Your task to perform on an android device: Open calendar and show me the fourth week of next month Image 0: 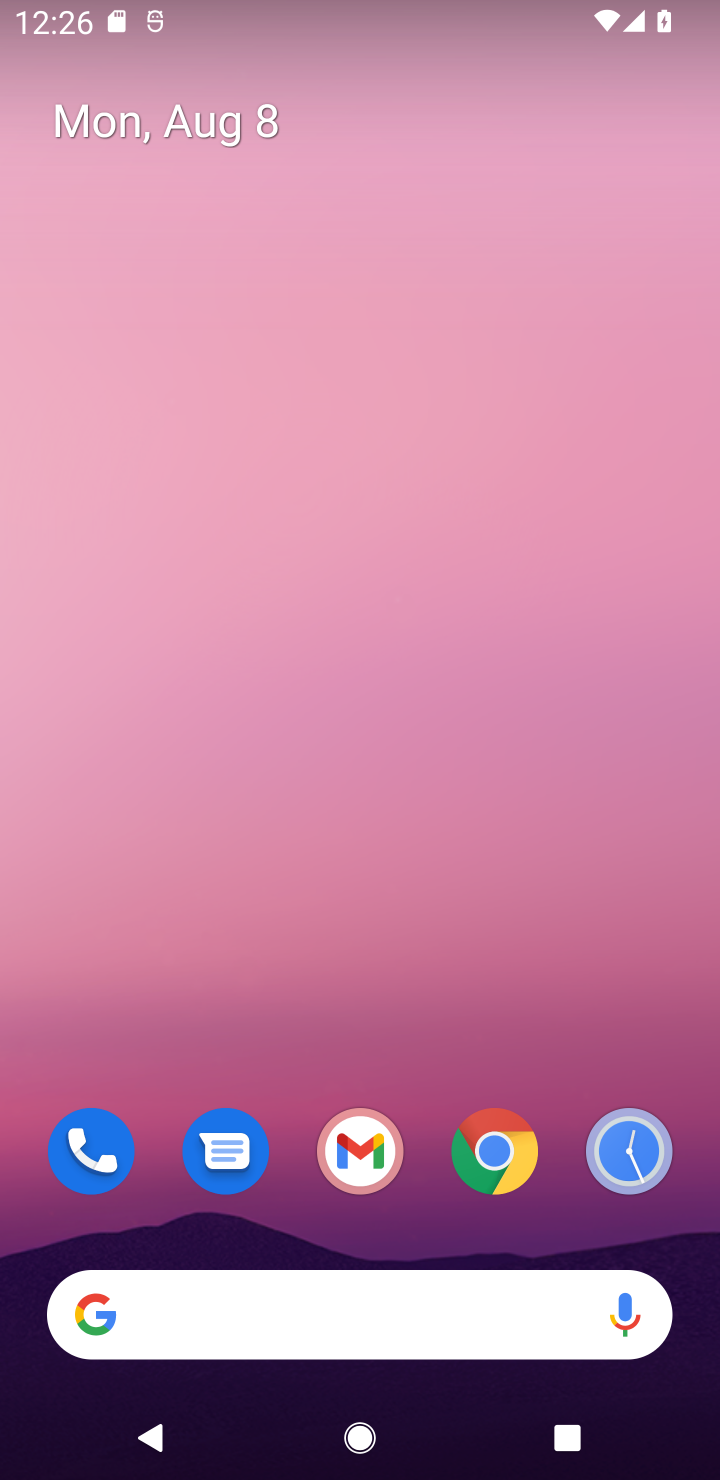
Step 0: drag from (213, 1150) to (311, 316)
Your task to perform on an android device: Open calendar and show me the fourth week of next month Image 1: 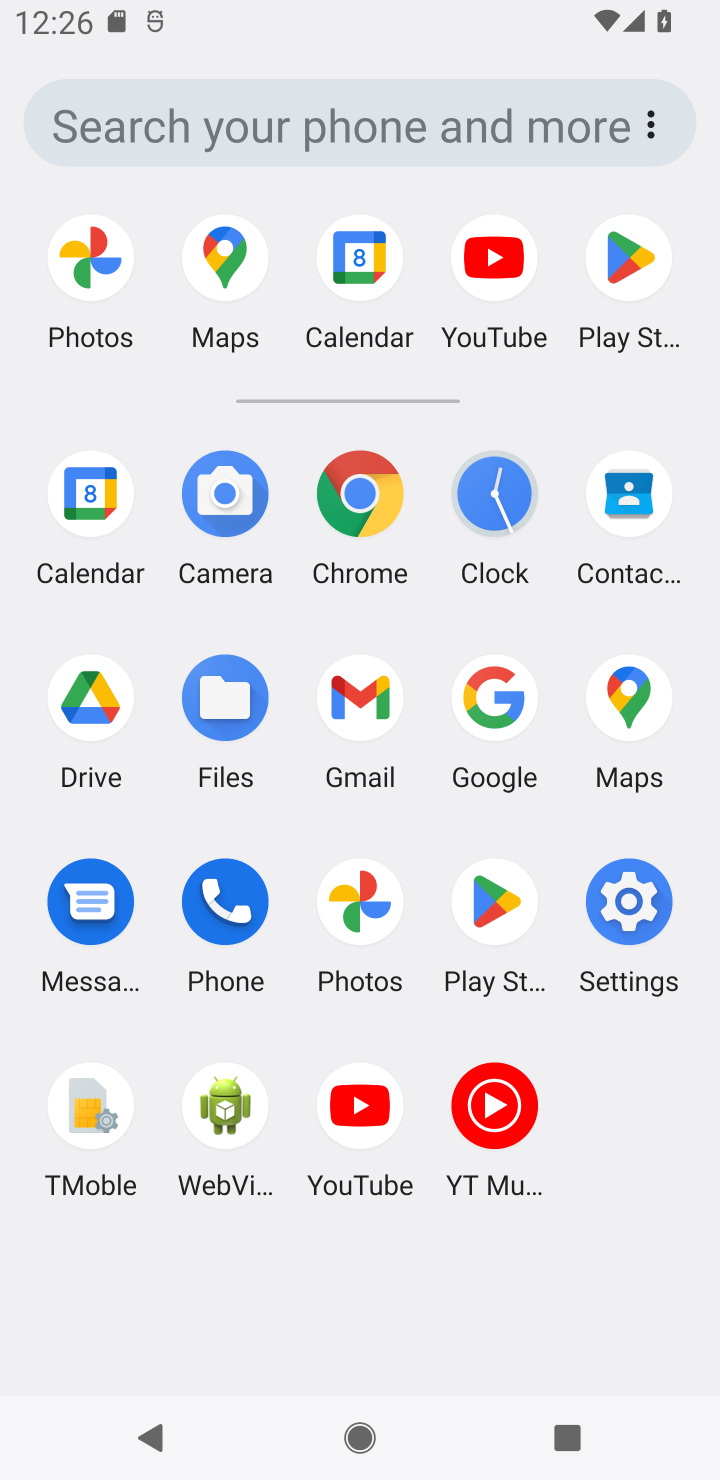
Step 1: click (93, 500)
Your task to perform on an android device: Open calendar and show me the fourth week of next month Image 2: 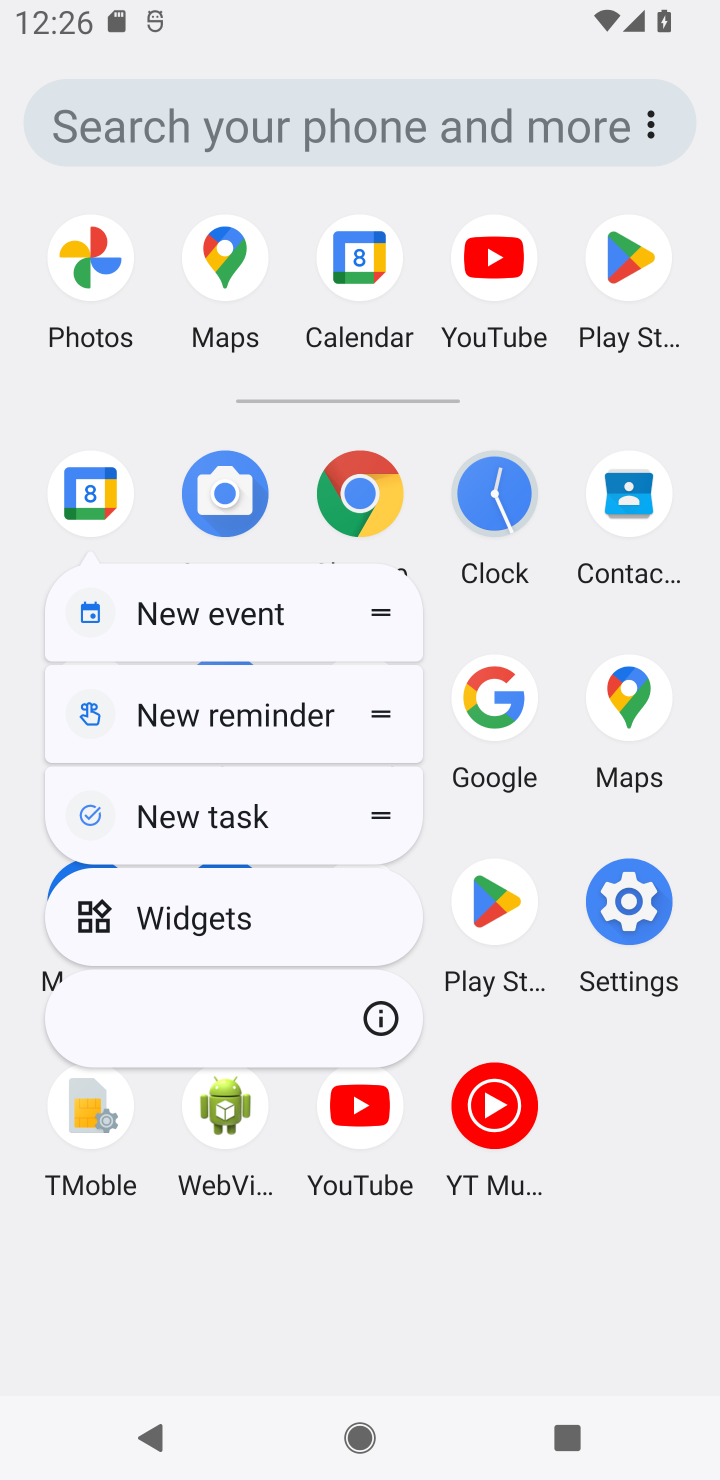
Step 2: click (101, 487)
Your task to perform on an android device: Open calendar and show me the fourth week of next month Image 3: 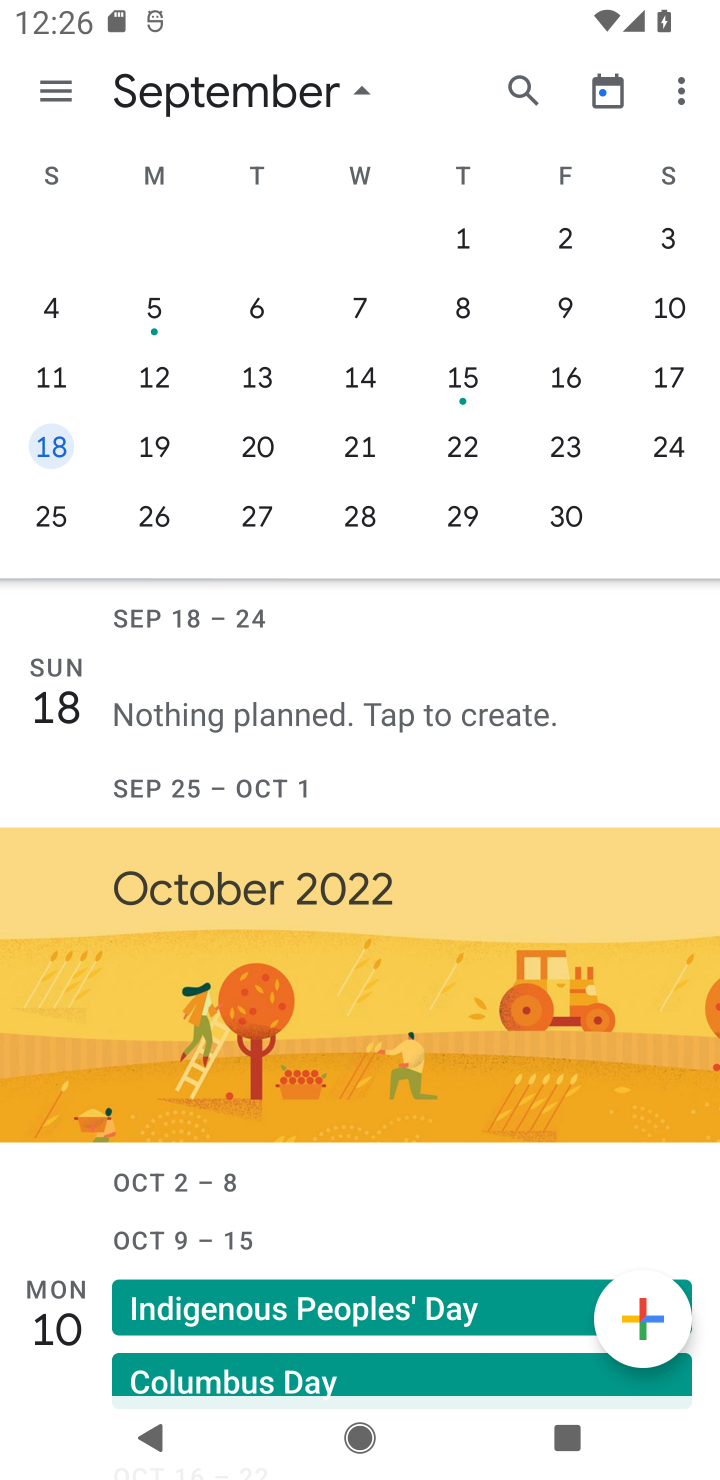
Step 3: click (101, 487)
Your task to perform on an android device: Open calendar and show me the fourth week of next month Image 4: 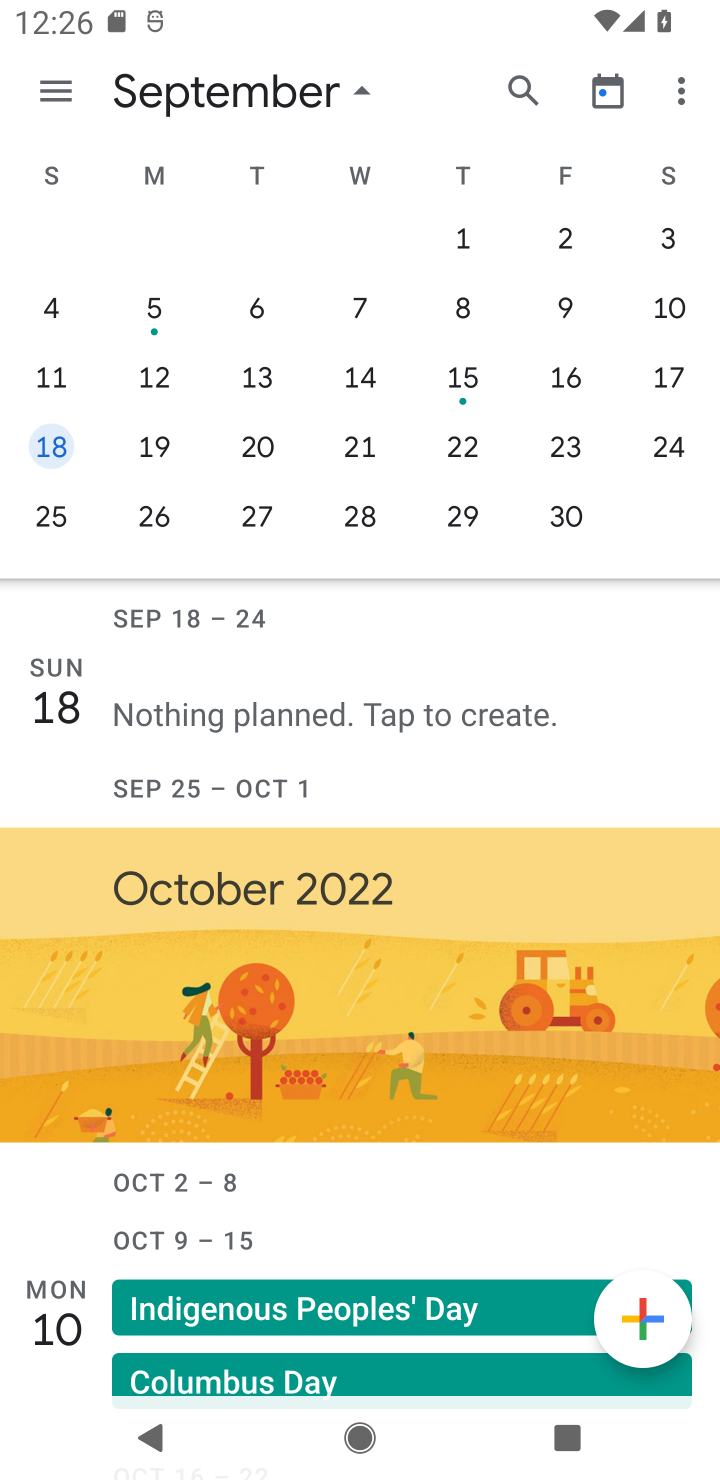
Step 4: click (70, 420)
Your task to perform on an android device: Open calendar and show me the fourth week of next month Image 5: 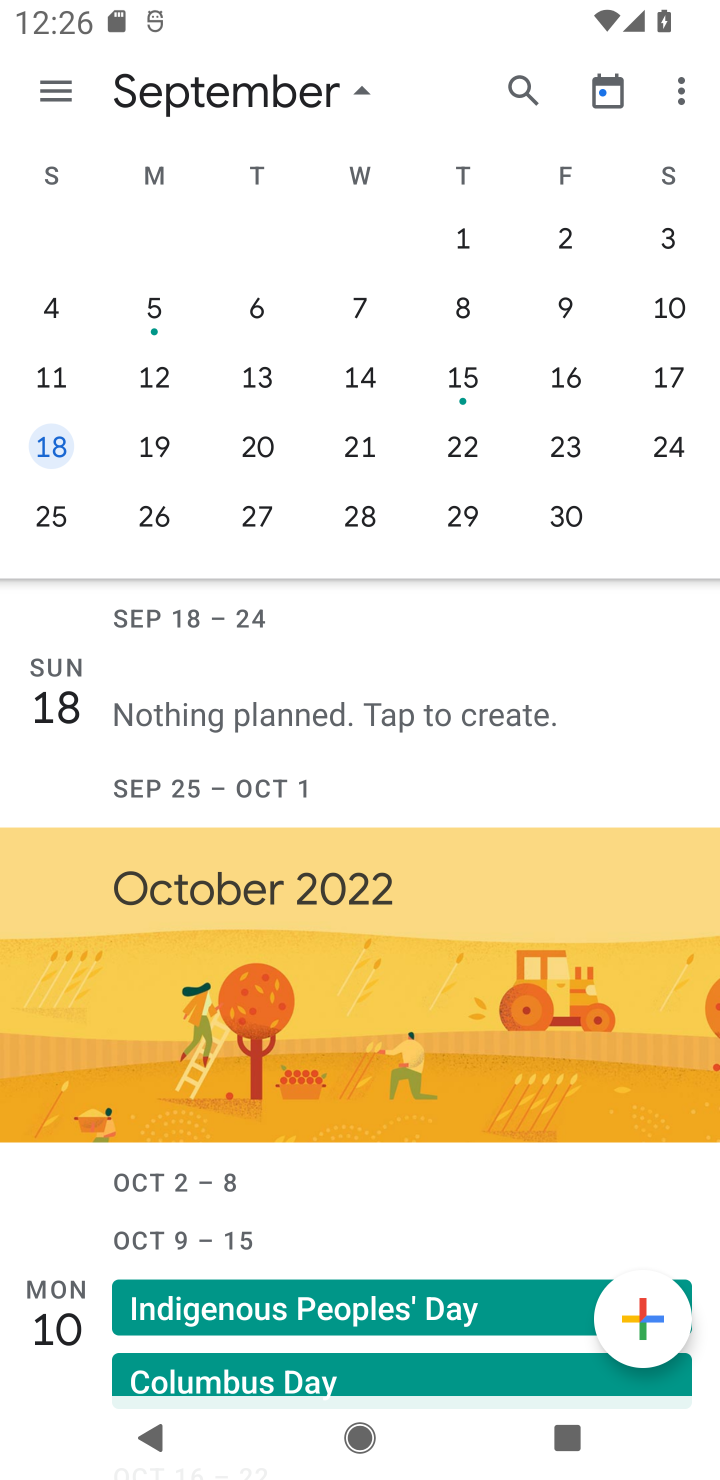
Step 5: click (72, 445)
Your task to perform on an android device: Open calendar and show me the fourth week of next month Image 6: 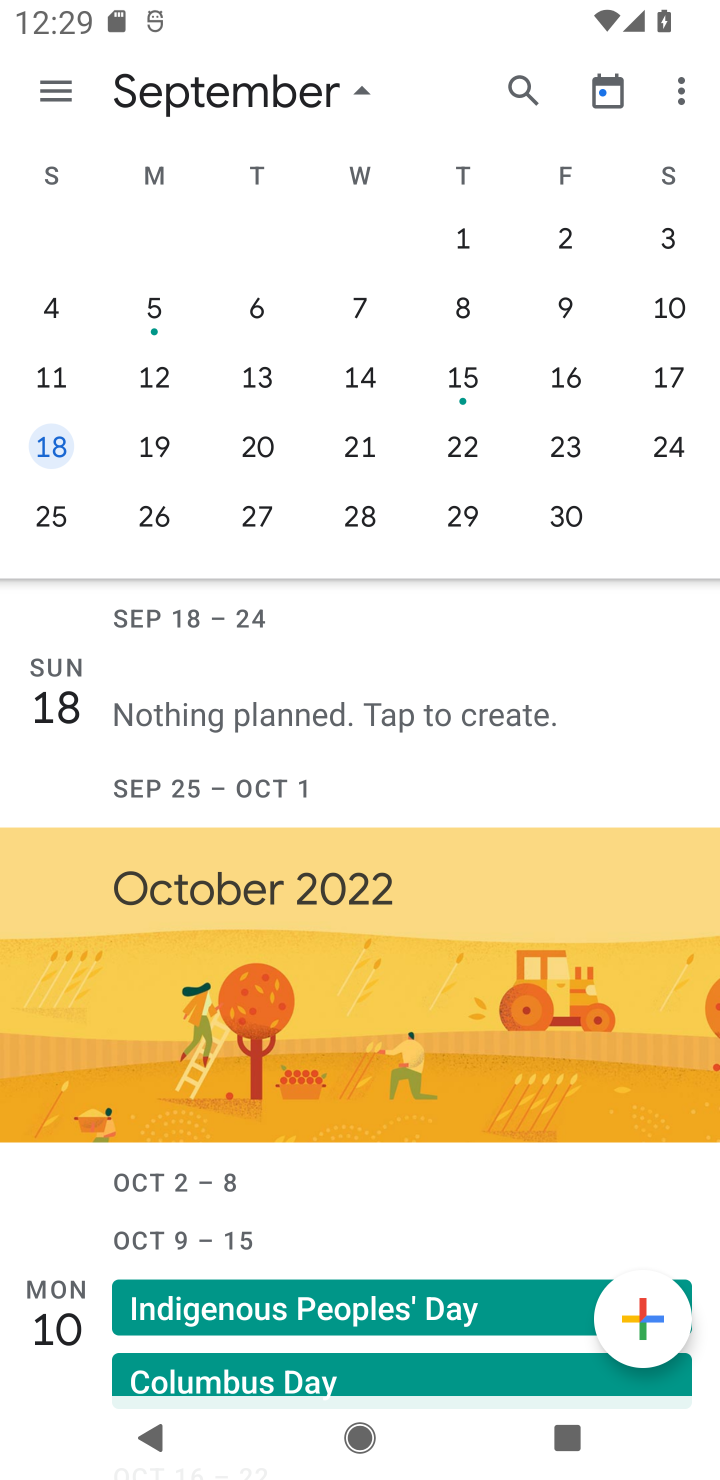
Step 6: click (56, 433)
Your task to perform on an android device: Open calendar and show me the fourth week of next month Image 7: 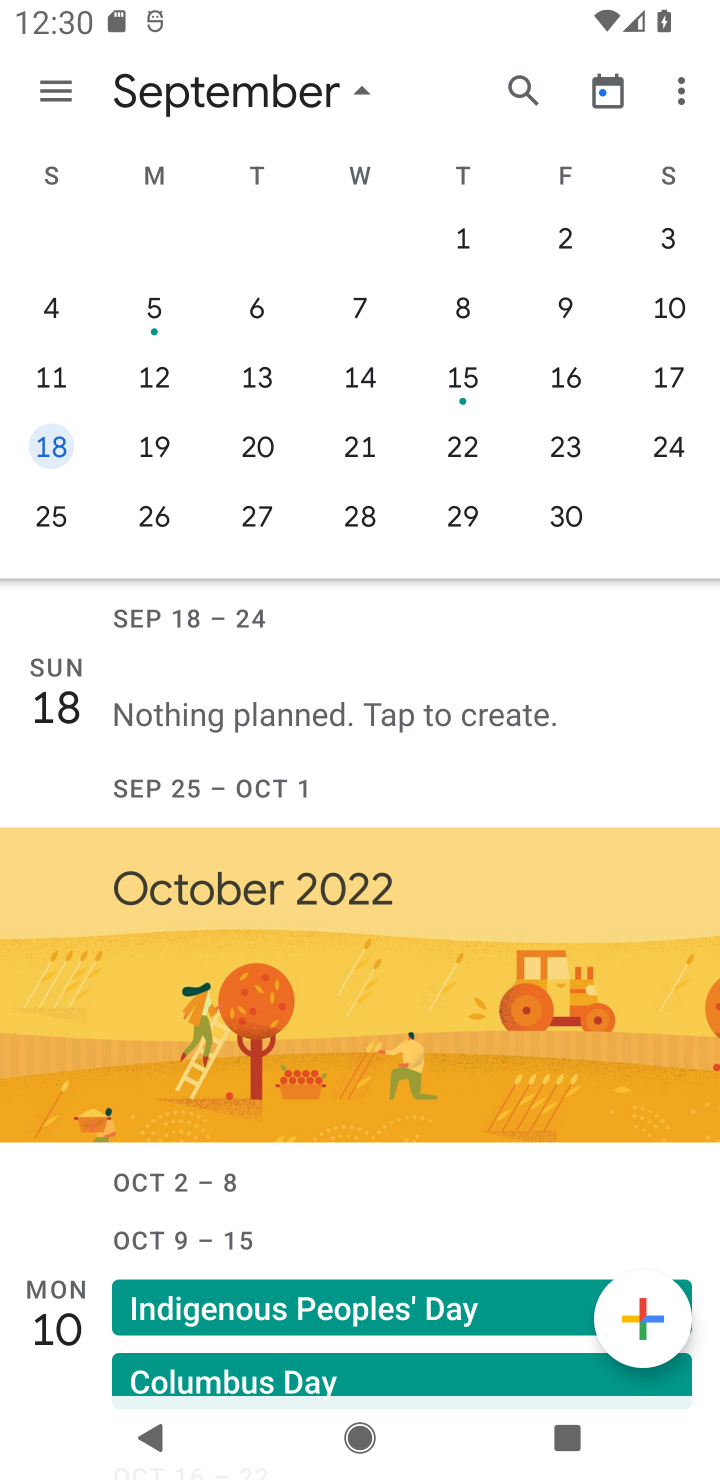
Step 7: click (60, 426)
Your task to perform on an android device: Open calendar and show me the fourth week of next month Image 8: 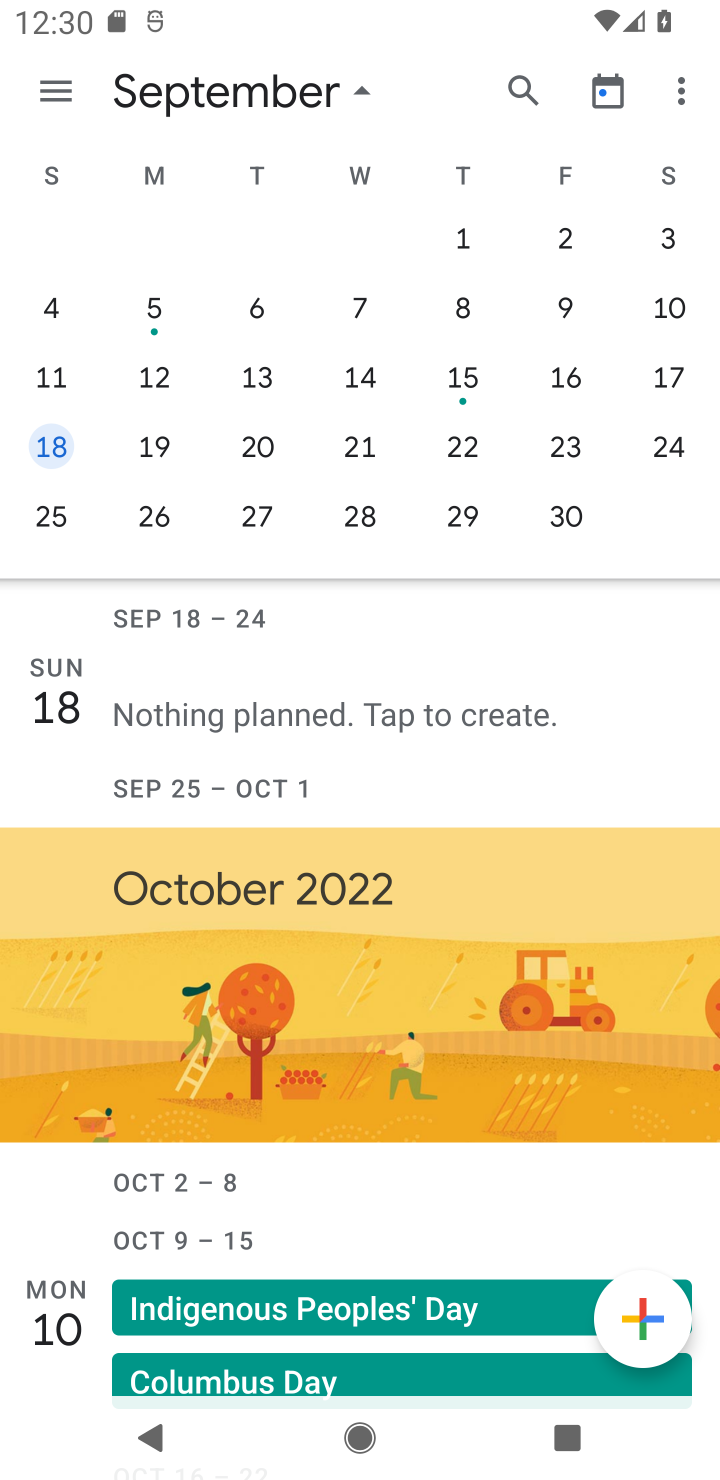
Step 8: task complete